Your task to perform on an android device: Go to Yahoo.com Image 0: 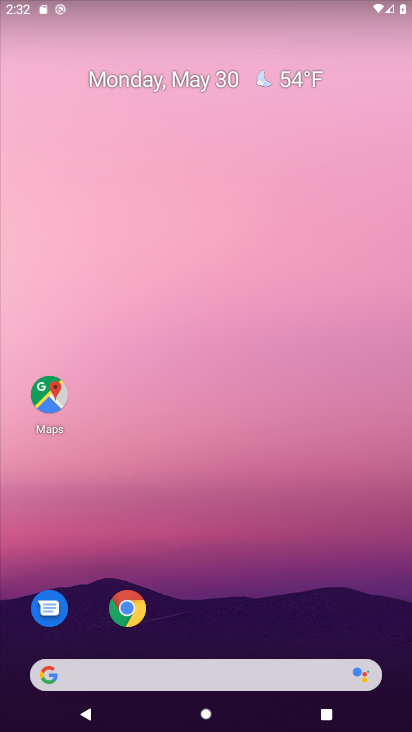
Step 0: click (120, 612)
Your task to perform on an android device: Go to Yahoo.com Image 1: 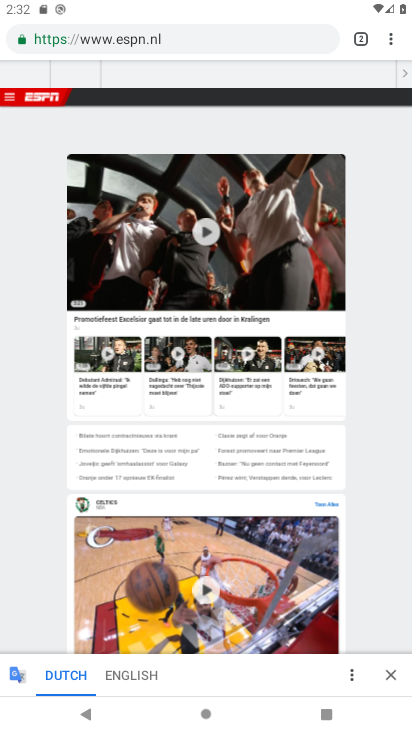
Step 1: click (357, 36)
Your task to perform on an android device: Go to Yahoo.com Image 2: 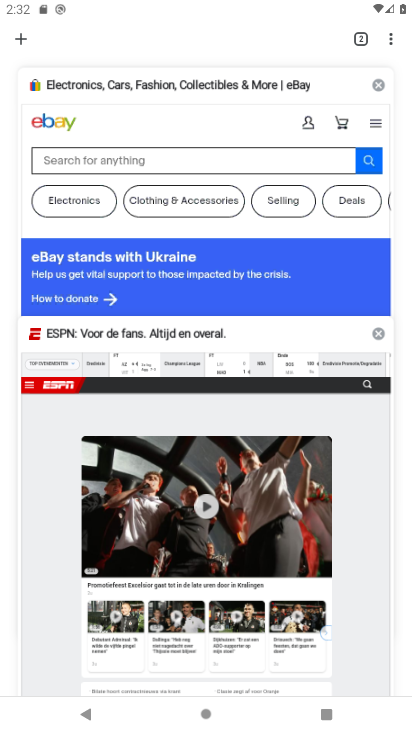
Step 2: click (18, 42)
Your task to perform on an android device: Go to Yahoo.com Image 3: 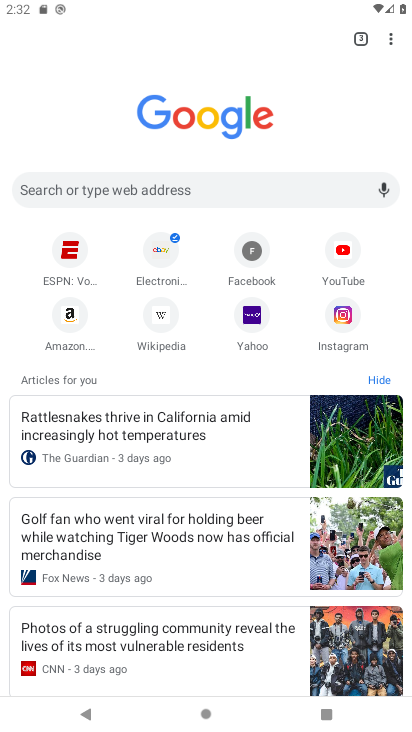
Step 3: click (255, 330)
Your task to perform on an android device: Go to Yahoo.com Image 4: 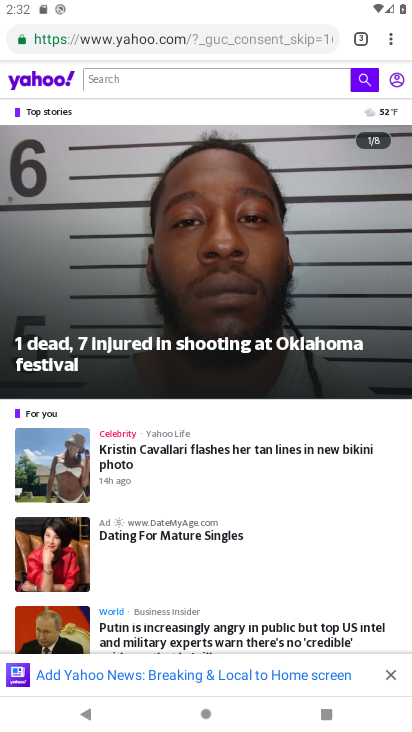
Step 4: task complete